Your task to perform on an android device: open chrome privacy settings Image 0: 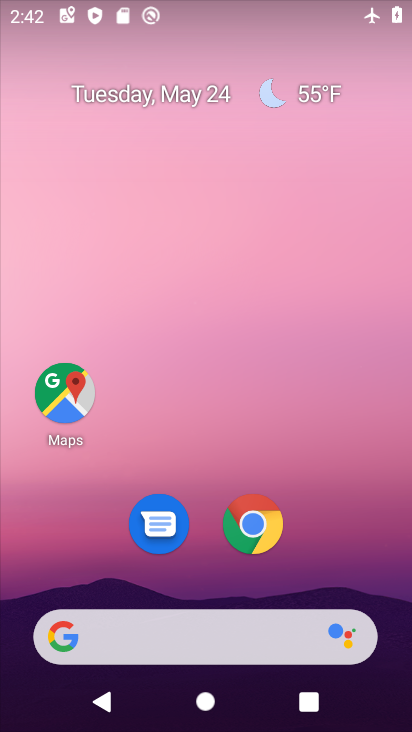
Step 0: click (259, 524)
Your task to perform on an android device: open chrome privacy settings Image 1: 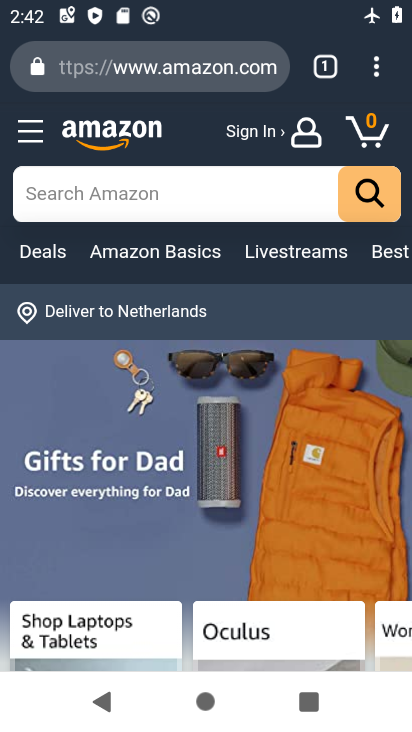
Step 1: click (376, 71)
Your task to perform on an android device: open chrome privacy settings Image 2: 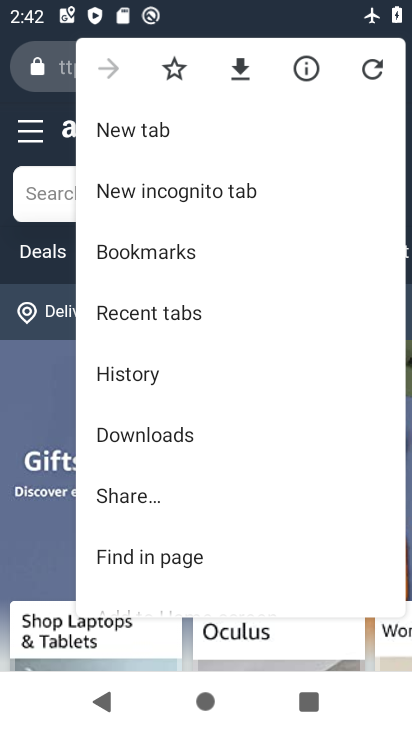
Step 2: drag from (206, 518) to (234, 173)
Your task to perform on an android device: open chrome privacy settings Image 3: 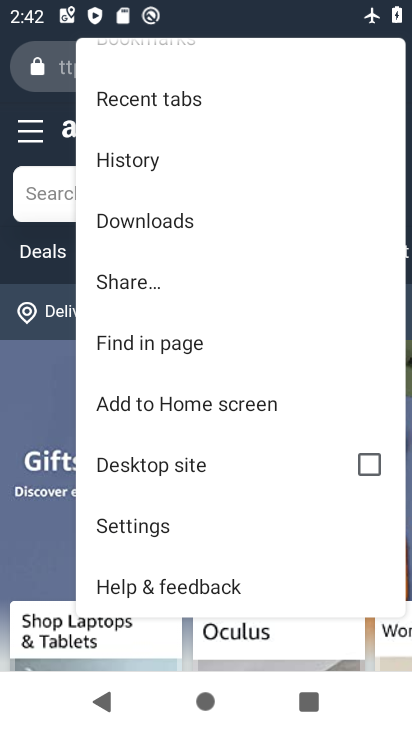
Step 3: click (164, 524)
Your task to perform on an android device: open chrome privacy settings Image 4: 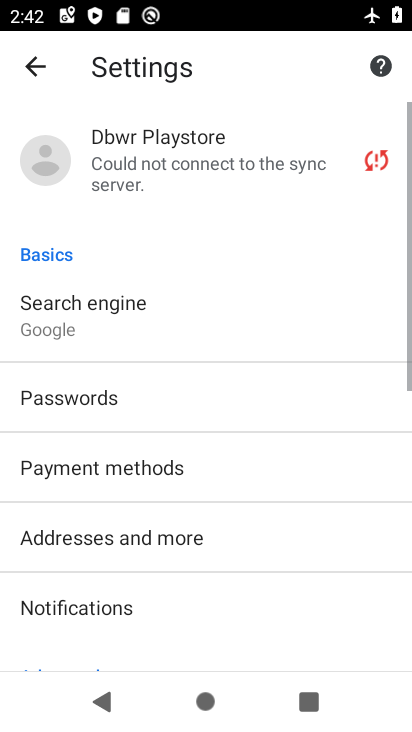
Step 4: drag from (158, 550) to (163, 384)
Your task to perform on an android device: open chrome privacy settings Image 5: 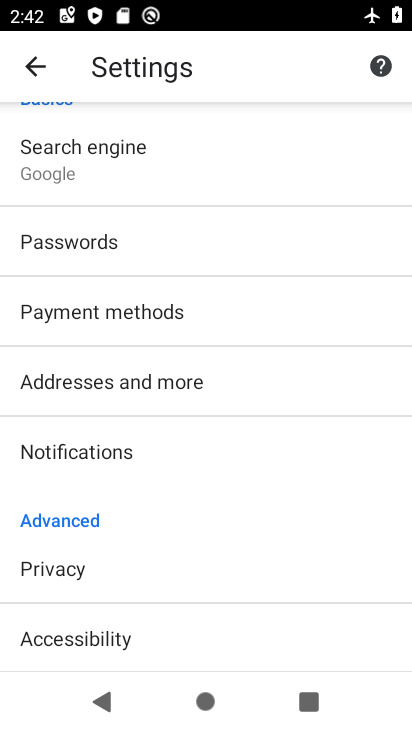
Step 5: click (134, 567)
Your task to perform on an android device: open chrome privacy settings Image 6: 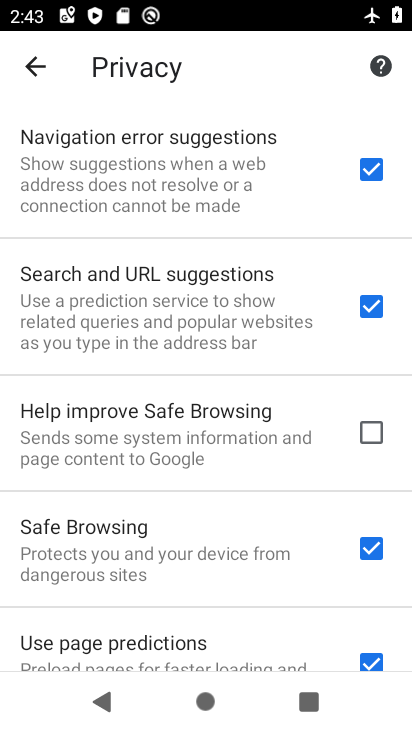
Step 6: task complete